Your task to perform on an android device: open app "Speedtest by Ookla" Image 0: 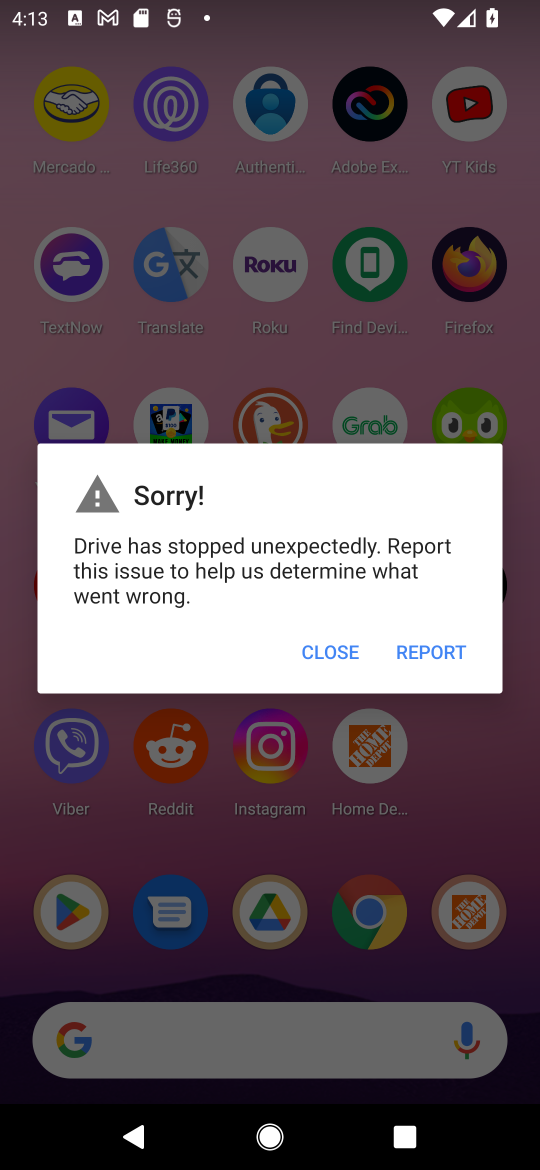
Step 0: press home button
Your task to perform on an android device: open app "Speedtest by Ookla" Image 1: 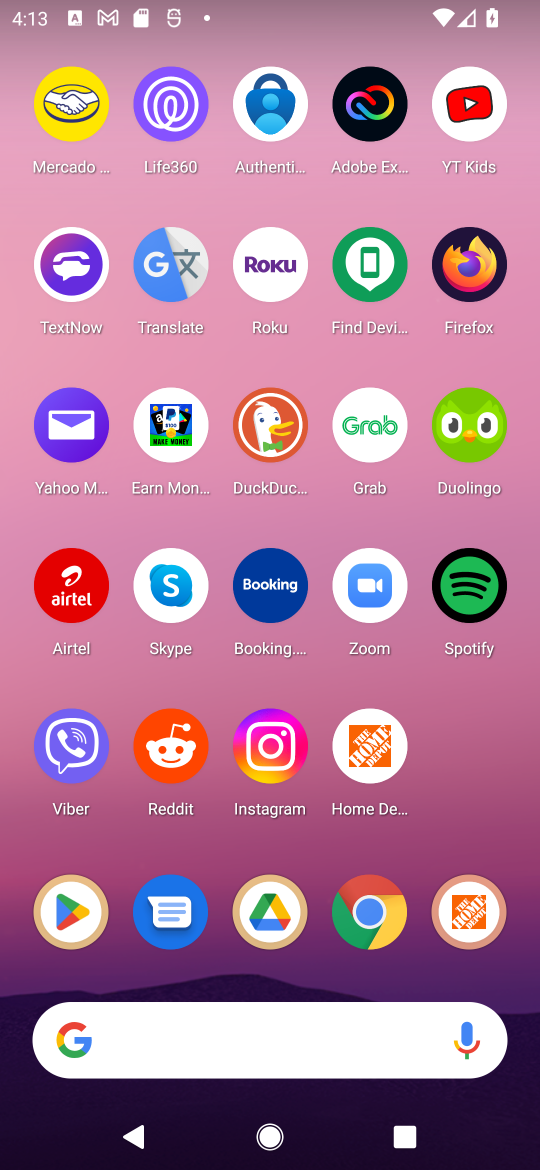
Step 1: click (57, 914)
Your task to perform on an android device: open app "Speedtest by Ookla" Image 2: 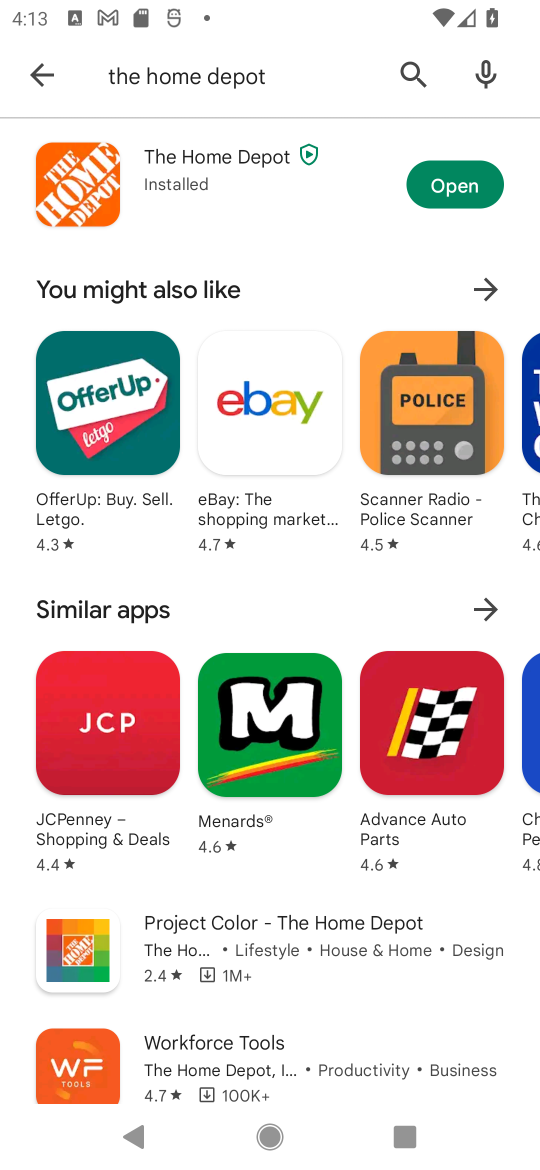
Step 2: click (399, 53)
Your task to perform on an android device: open app "Speedtest by Ookla" Image 3: 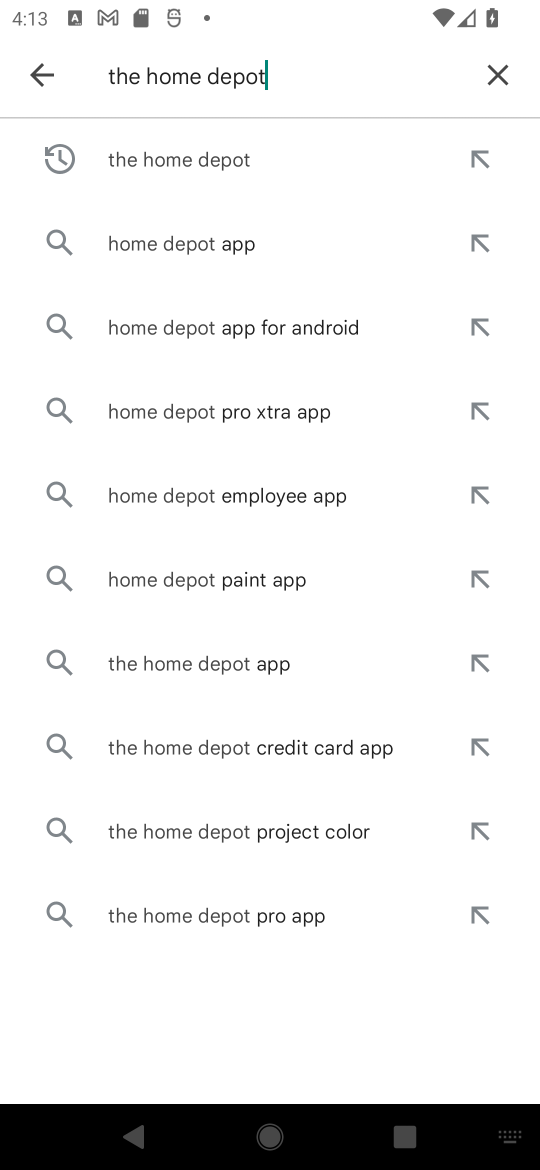
Step 3: click (509, 86)
Your task to perform on an android device: open app "Speedtest by Ookla" Image 4: 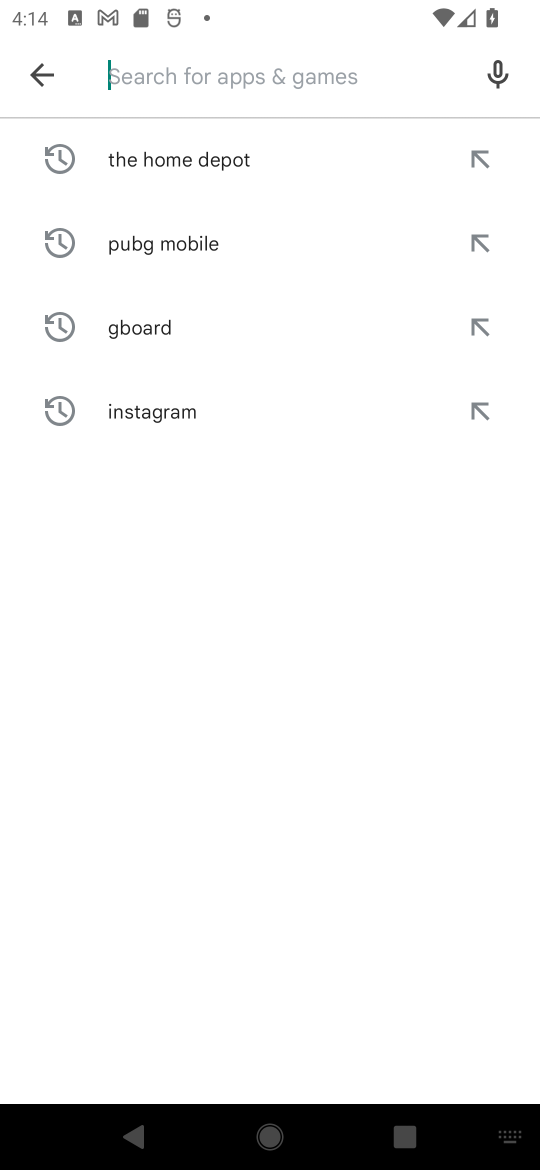
Step 4: type "Speedtest by Ookla"
Your task to perform on an android device: open app "Speedtest by Ookla" Image 5: 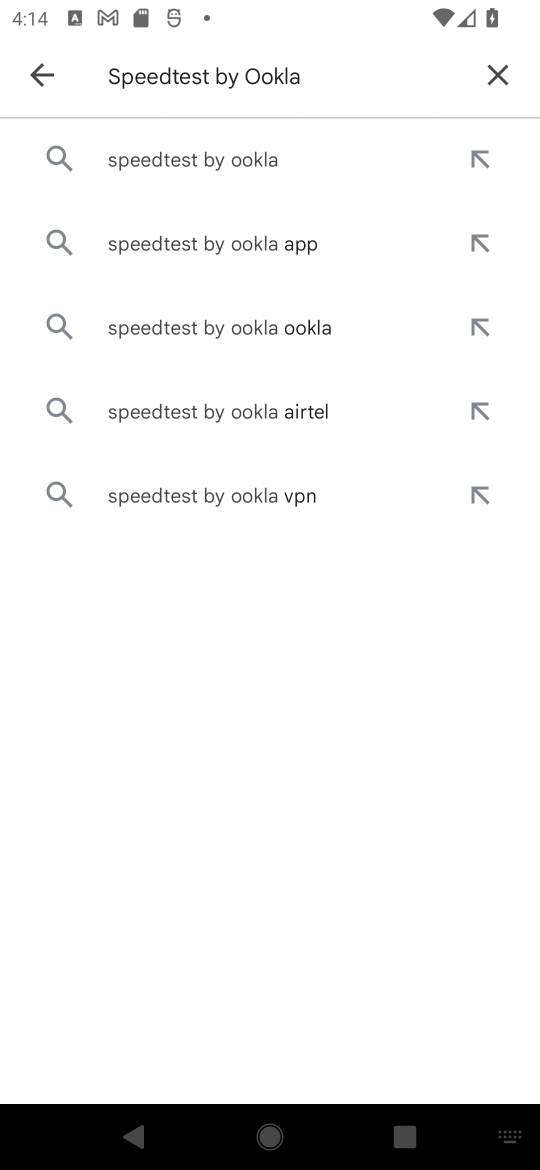
Step 5: click (152, 160)
Your task to perform on an android device: open app "Speedtest by Ookla" Image 6: 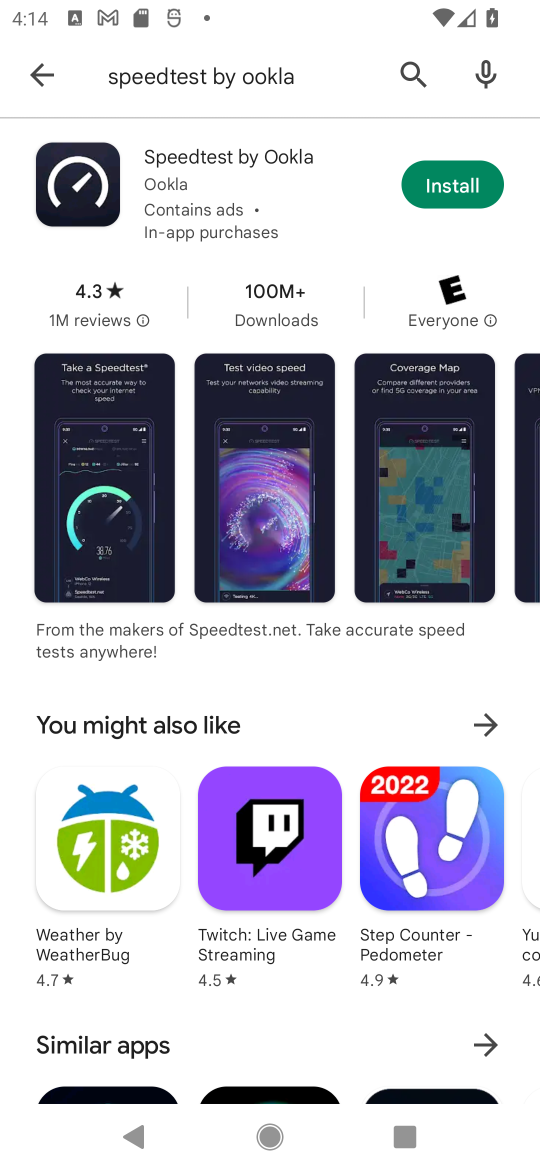
Step 6: task complete